Your task to perform on an android device: Open Google Chrome and open the bookmarks view Image 0: 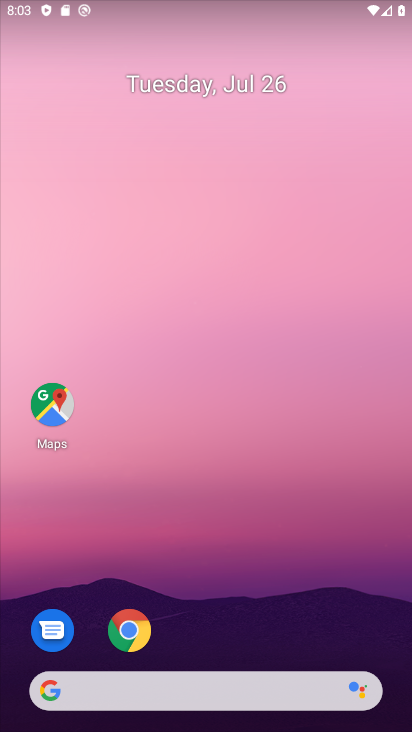
Step 0: drag from (292, 495) to (309, 49)
Your task to perform on an android device: Open Google Chrome and open the bookmarks view Image 1: 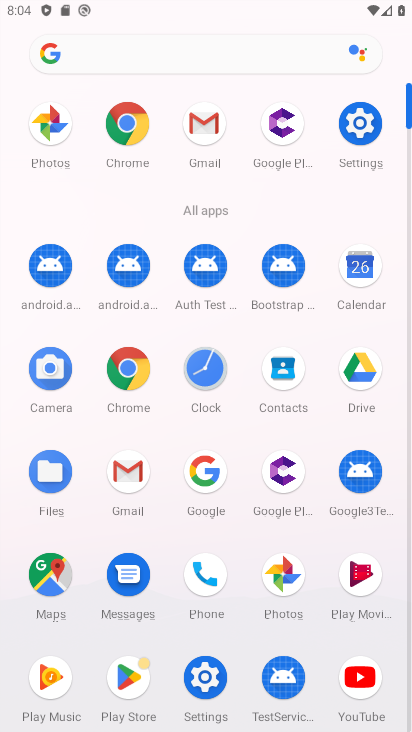
Step 1: click (114, 125)
Your task to perform on an android device: Open Google Chrome and open the bookmarks view Image 2: 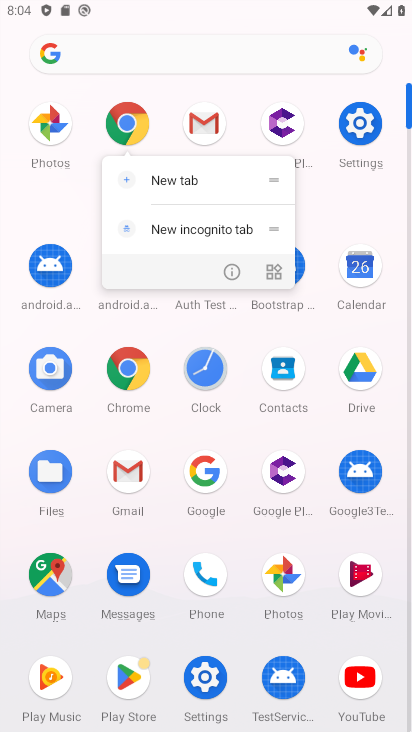
Step 2: click (117, 118)
Your task to perform on an android device: Open Google Chrome and open the bookmarks view Image 3: 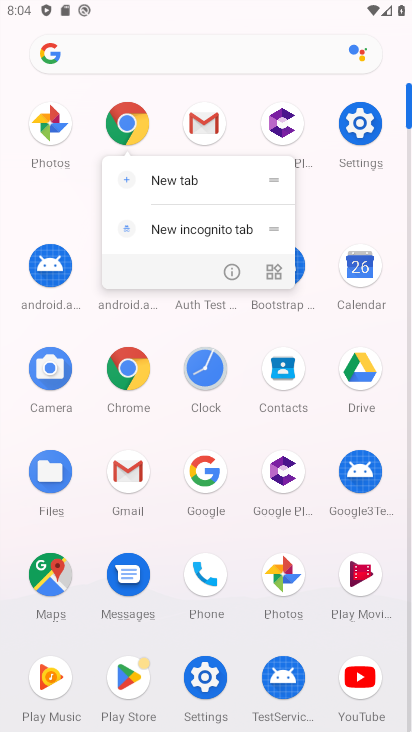
Step 3: click (116, 118)
Your task to perform on an android device: Open Google Chrome and open the bookmarks view Image 4: 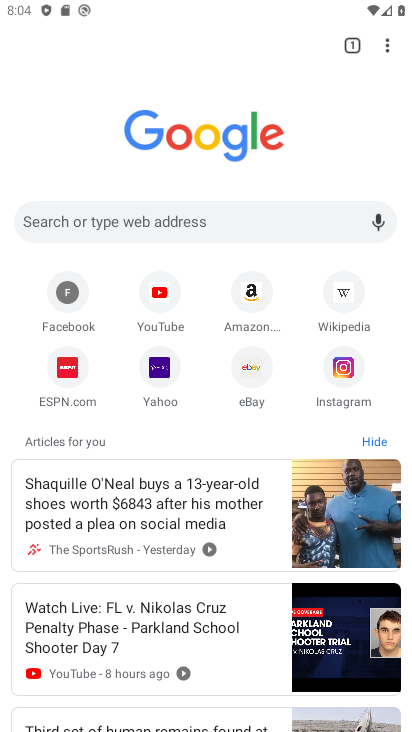
Step 4: drag from (384, 41) to (251, 177)
Your task to perform on an android device: Open Google Chrome and open the bookmarks view Image 5: 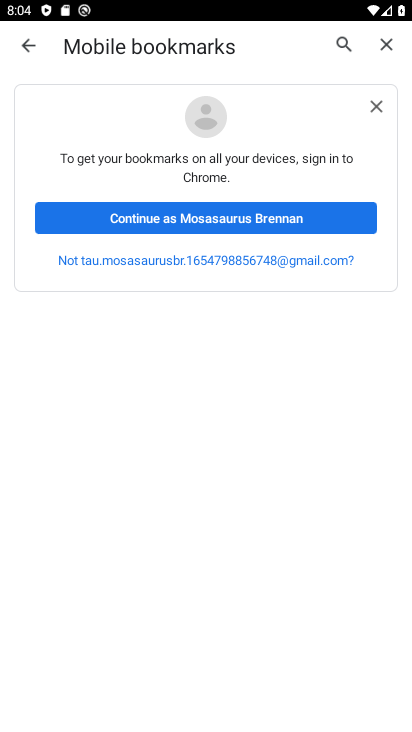
Step 5: click (230, 202)
Your task to perform on an android device: Open Google Chrome and open the bookmarks view Image 6: 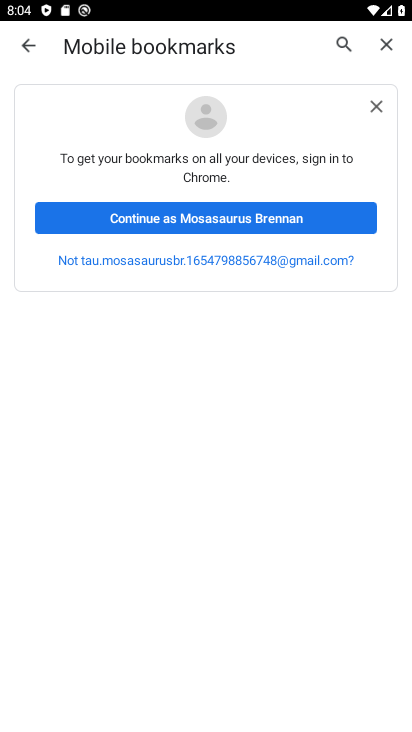
Step 6: click (231, 208)
Your task to perform on an android device: Open Google Chrome and open the bookmarks view Image 7: 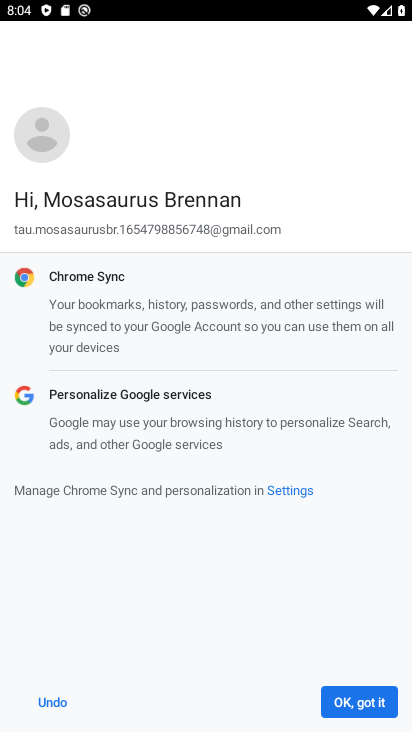
Step 7: click (350, 698)
Your task to perform on an android device: Open Google Chrome and open the bookmarks view Image 8: 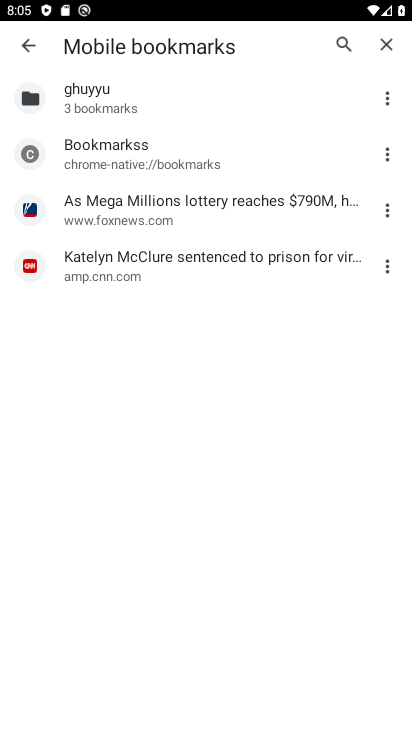
Step 8: task complete